Your task to perform on an android device: See recent photos Image 0: 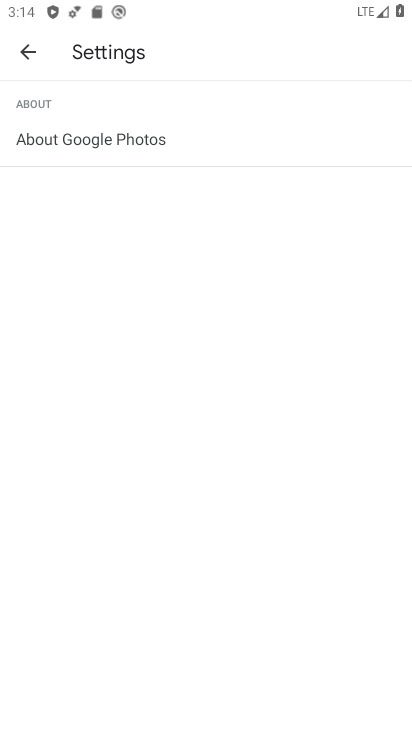
Step 0: press home button
Your task to perform on an android device: See recent photos Image 1: 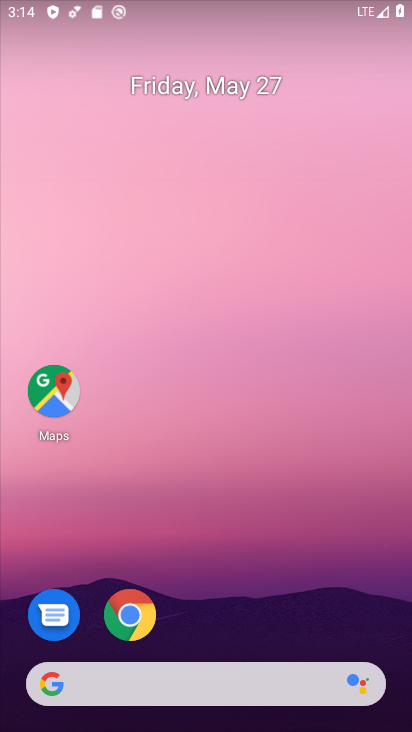
Step 1: drag from (201, 655) to (216, 215)
Your task to perform on an android device: See recent photos Image 2: 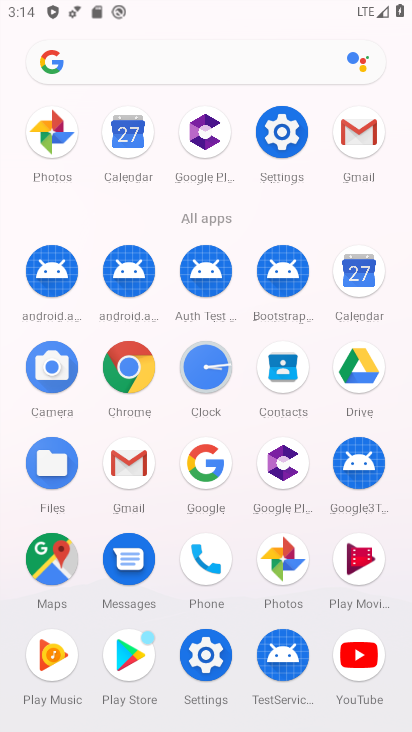
Step 2: click (37, 141)
Your task to perform on an android device: See recent photos Image 3: 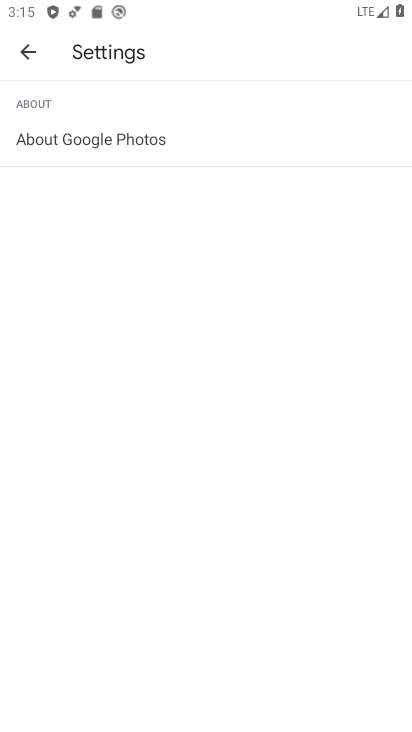
Step 3: click (22, 61)
Your task to perform on an android device: See recent photos Image 4: 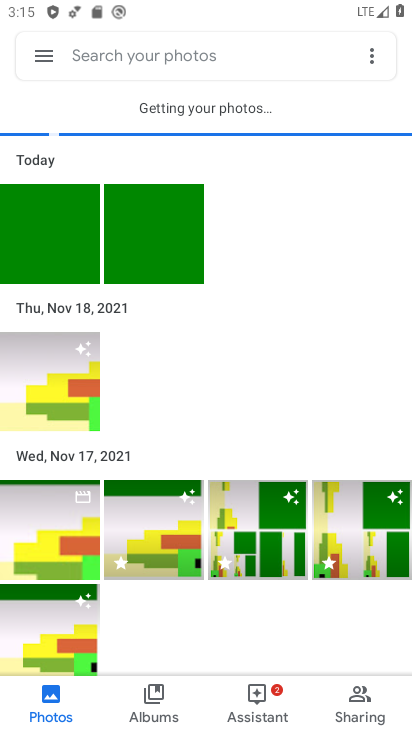
Step 4: task complete